Your task to perform on an android device: toggle sleep mode Image 0: 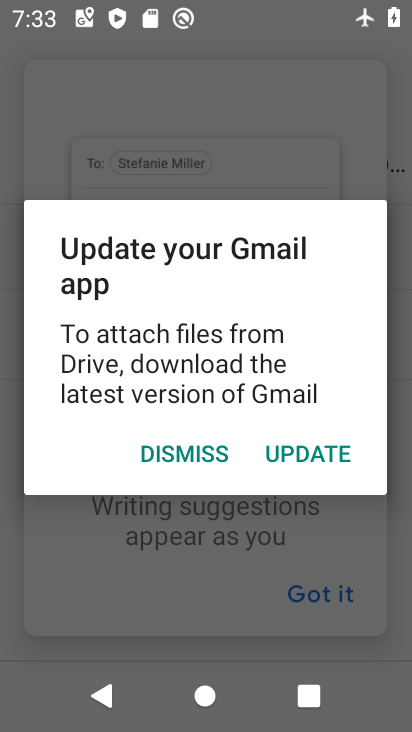
Step 0: press home button
Your task to perform on an android device: toggle sleep mode Image 1: 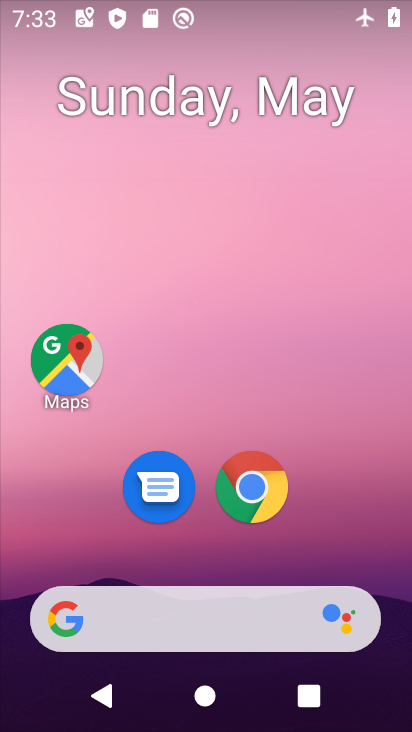
Step 1: drag from (375, 528) to (372, 75)
Your task to perform on an android device: toggle sleep mode Image 2: 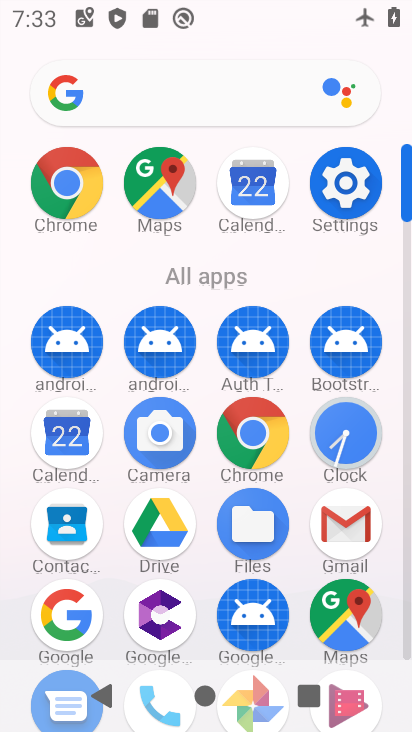
Step 2: click (347, 204)
Your task to perform on an android device: toggle sleep mode Image 3: 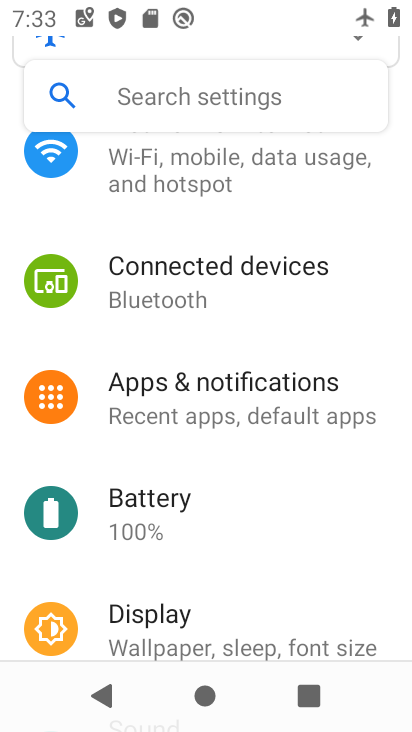
Step 3: drag from (347, 545) to (358, 436)
Your task to perform on an android device: toggle sleep mode Image 4: 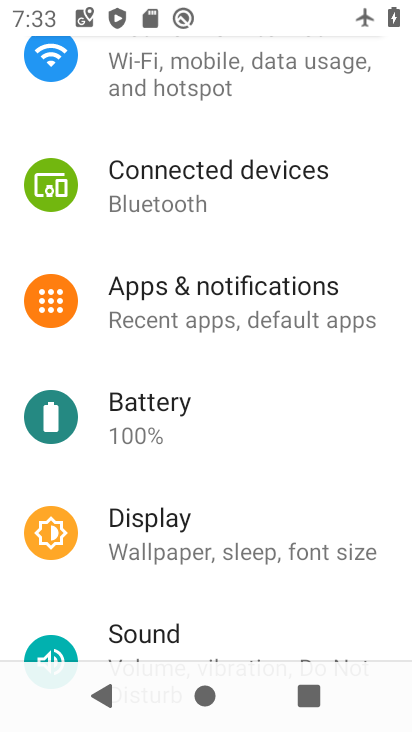
Step 4: drag from (359, 616) to (352, 465)
Your task to perform on an android device: toggle sleep mode Image 5: 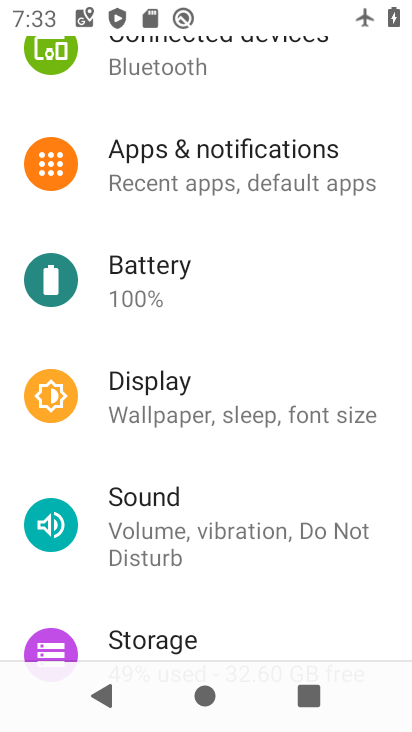
Step 5: drag from (346, 596) to (350, 470)
Your task to perform on an android device: toggle sleep mode Image 6: 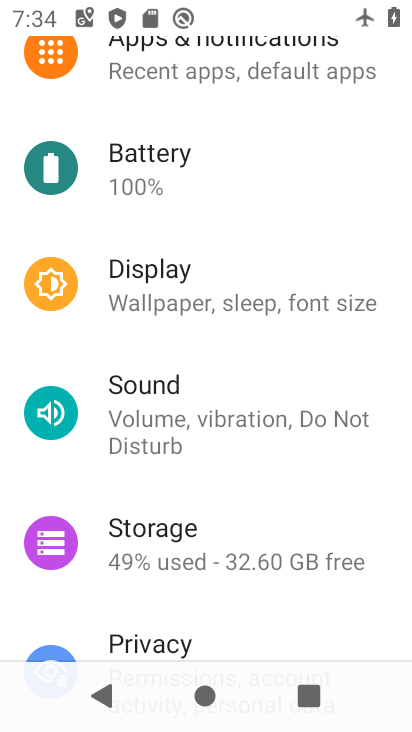
Step 6: drag from (330, 619) to (326, 479)
Your task to perform on an android device: toggle sleep mode Image 7: 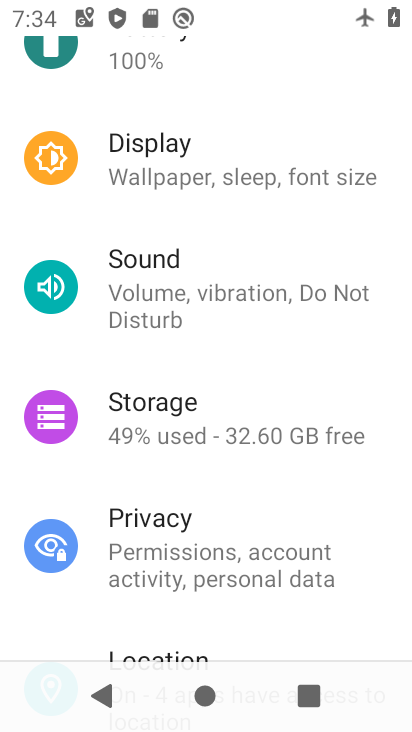
Step 7: drag from (369, 613) to (368, 527)
Your task to perform on an android device: toggle sleep mode Image 8: 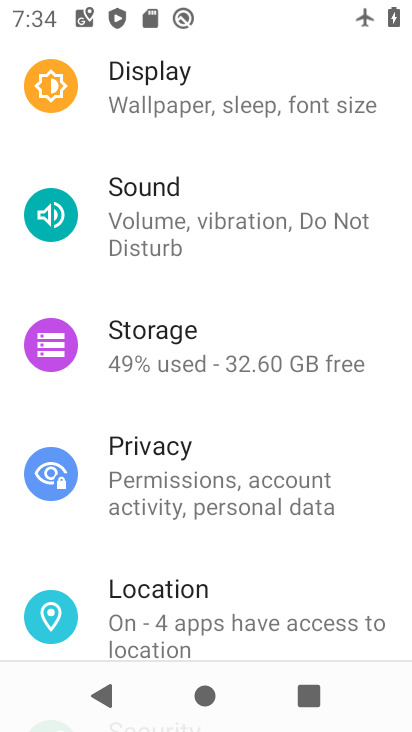
Step 8: drag from (372, 638) to (370, 534)
Your task to perform on an android device: toggle sleep mode Image 9: 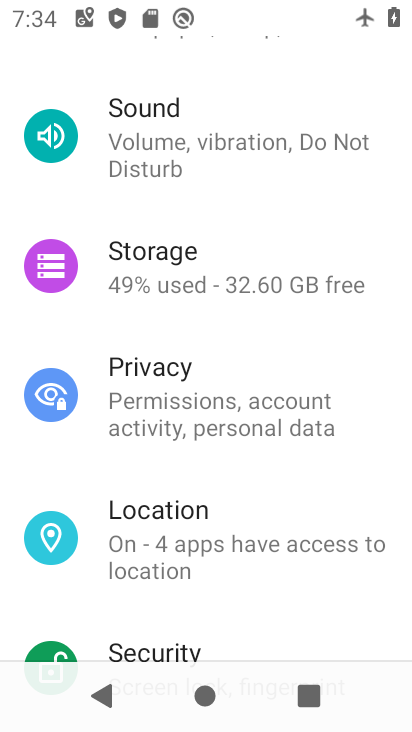
Step 9: drag from (371, 618) to (378, 519)
Your task to perform on an android device: toggle sleep mode Image 10: 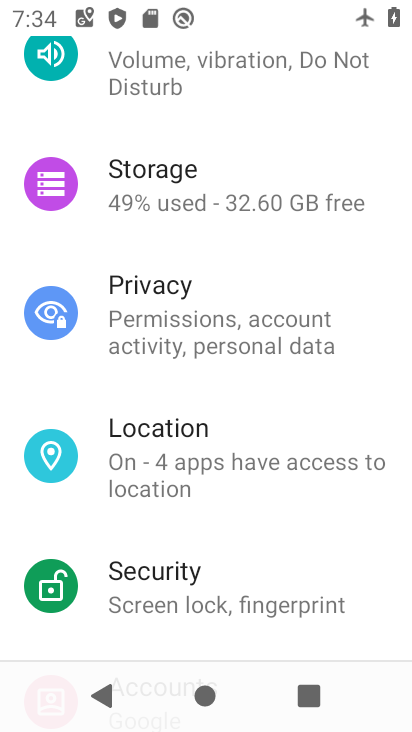
Step 10: drag from (379, 610) to (378, 530)
Your task to perform on an android device: toggle sleep mode Image 11: 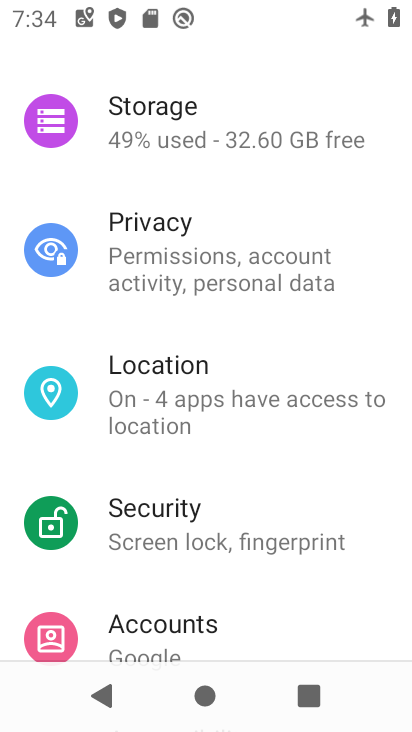
Step 11: drag from (382, 342) to (363, 466)
Your task to perform on an android device: toggle sleep mode Image 12: 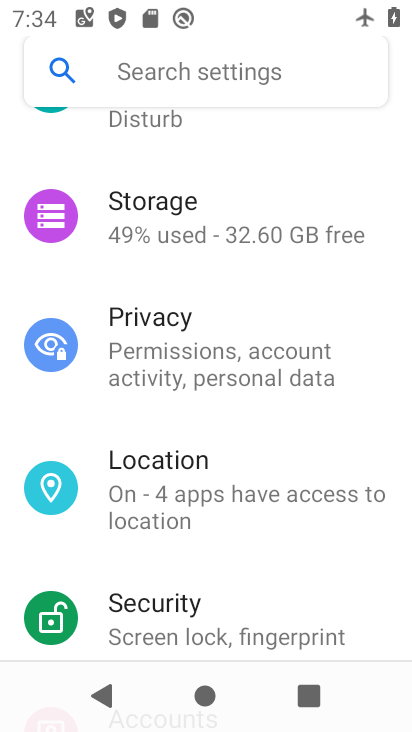
Step 12: drag from (374, 330) to (376, 432)
Your task to perform on an android device: toggle sleep mode Image 13: 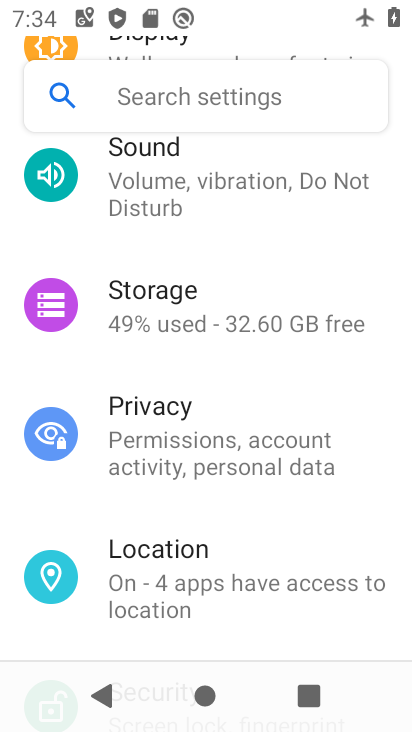
Step 13: drag from (385, 288) to (373, 416)
Your task to perform on an android device: toggle sleep mode Image 14: 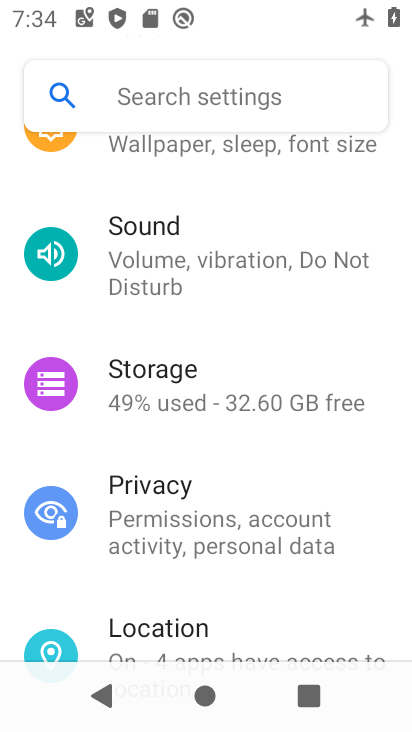
Step 14: drag from (371, 315) to (359, 443)
Your task to perform on an android device: toggle sleep mode Image 15: 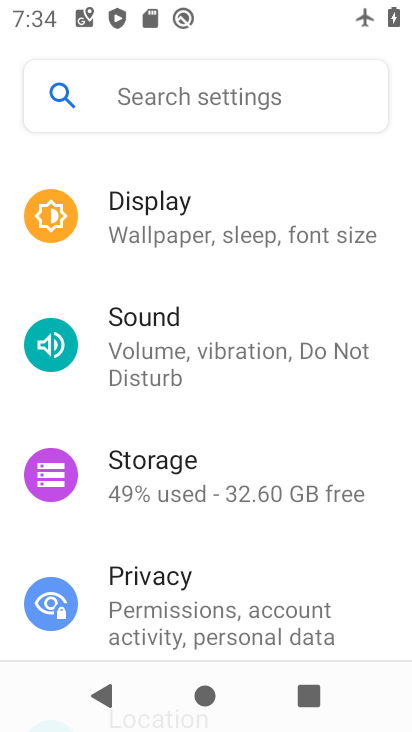
Step 15: drag from (377, 298) to (369, 402)
Your task to perform on an android device: toggle sleep mode Image 16: 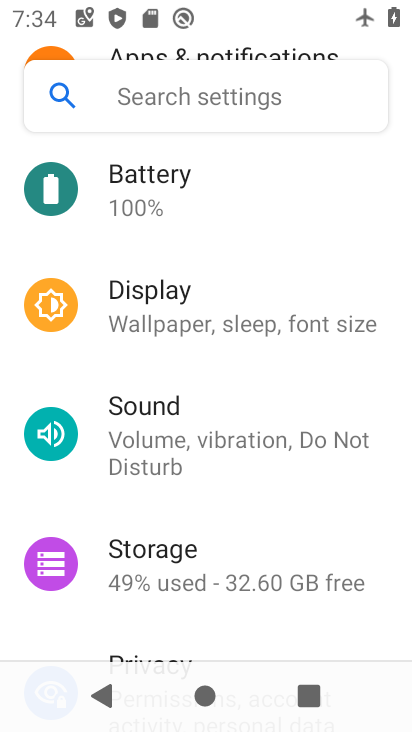
Step 16: drag from (364, 264) to (350, 368)
Your task to perform on an android device: toggle sleep mode Image 17: 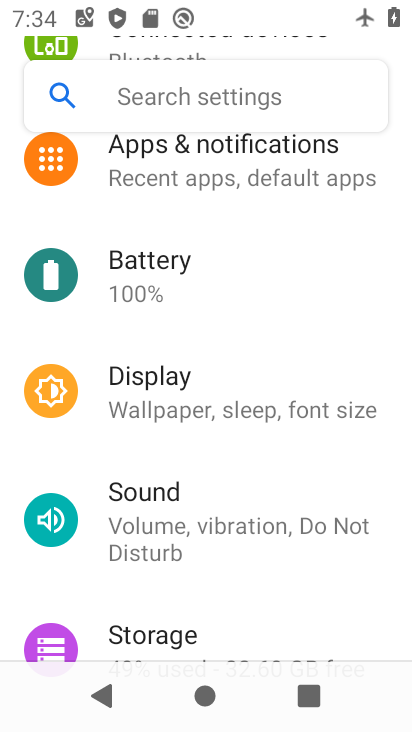
Step 17: click (285, 410)
Your task to perform on an android device: toggle sleep mode Image 18: 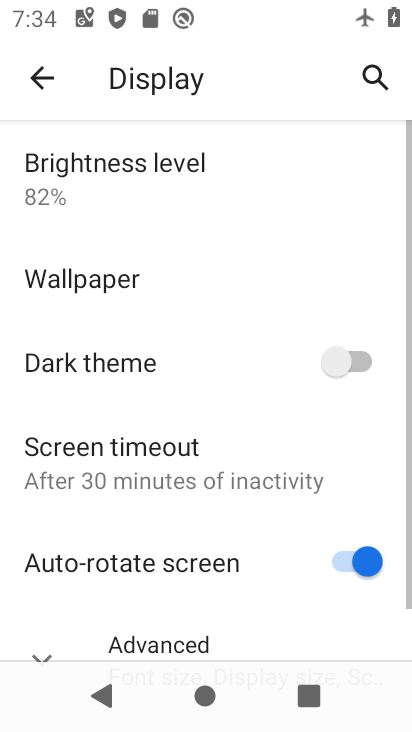
Step 18: click (206, 642)
Your task to perform on an android device: toggle sleep mode Image 19: 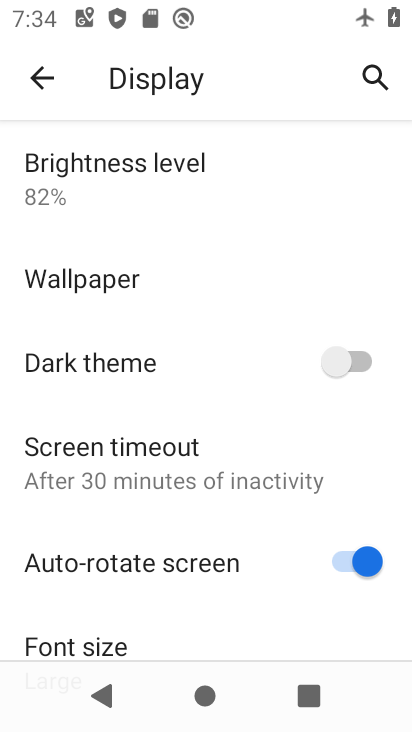
Step 19: task complete